Your task to perform on an android device: Go to privacy settings Image 0: 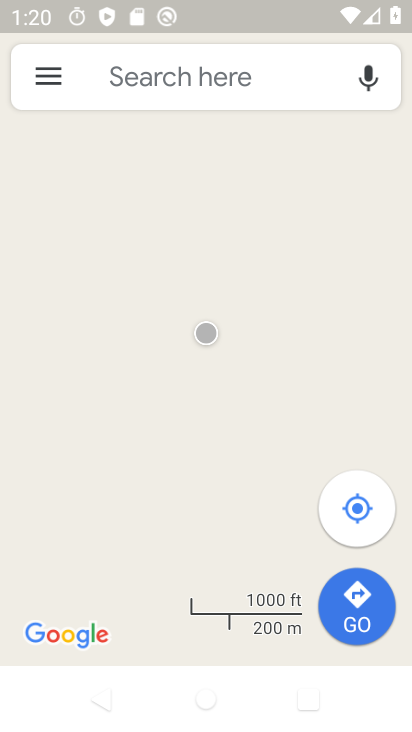
Step 0: press home button
Your task to perform on an android device: Go to privacy settings Image 1: 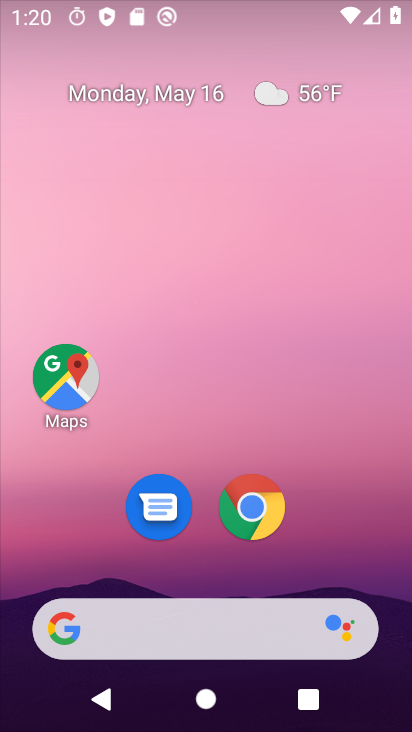
Step 1: drag from (221, 565) to (210, 84)
Your task to perform on an android device: Go to privacy settings Image 2: 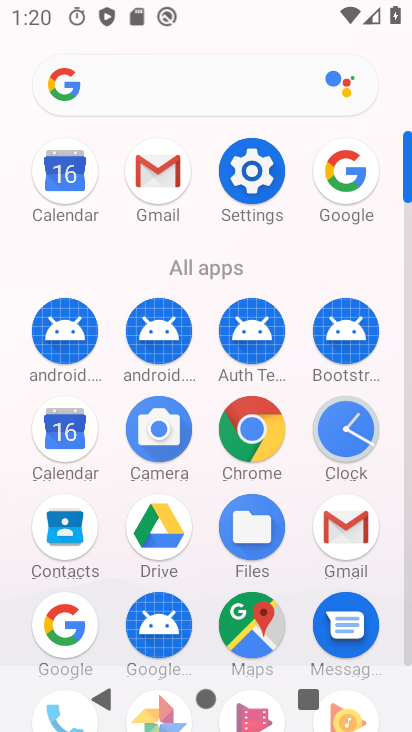
Step 2: click (252, 166)
Your task to perform on an android device: Go to privacy settings Image 3: 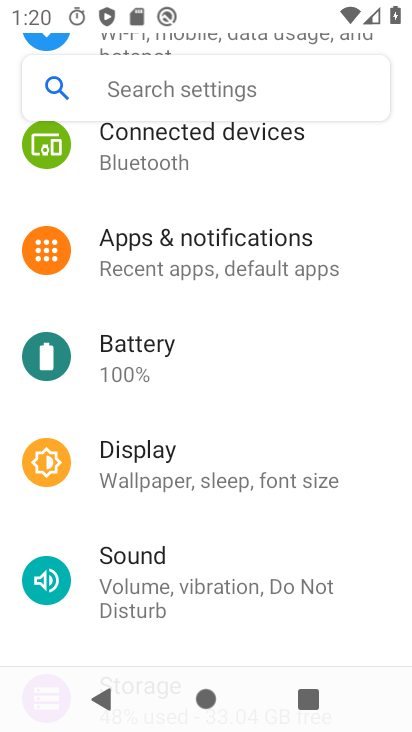
Step 3: drag from (202, 528) to (191, 157)
Your task to perform on an android device: Go to privacy settings Image 4: 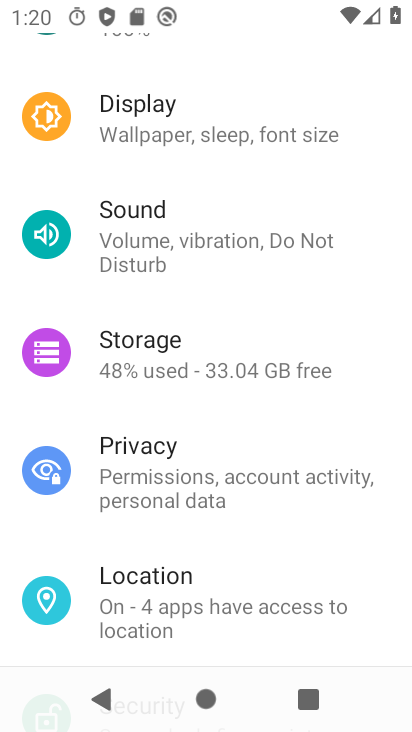
Step 4: click (174, 477)
Your task to perform on an android device: Go to privacy settings Image 5: 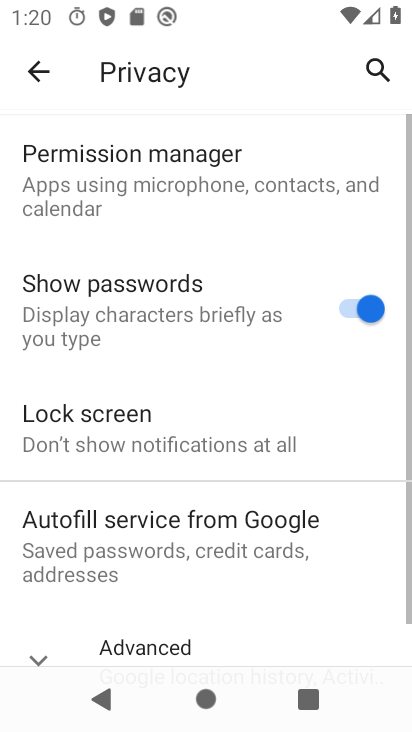
Step 5: task complete